Your task to perform on an android device: Go to location settings Image 0: 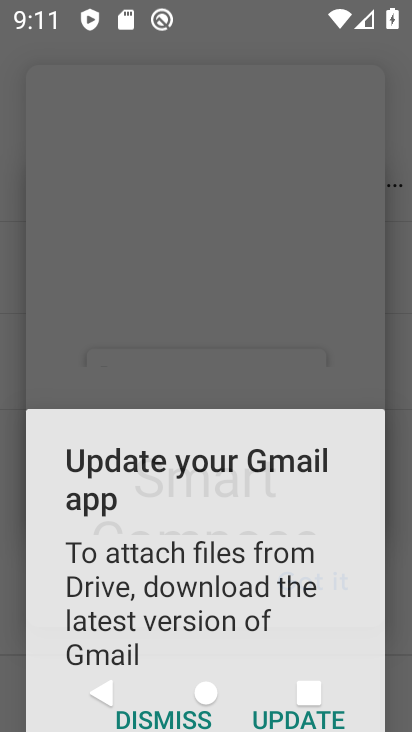
Step 0: press home button
Your task to perform on an android device: Go to location settings Image 1: 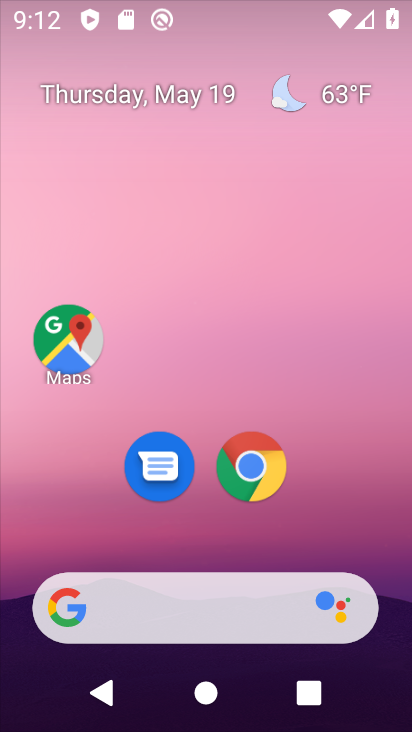
Step 1: drag from (393, 652) to (319, 39)
Your task to perform on an android device: Go to location settings Image 2: 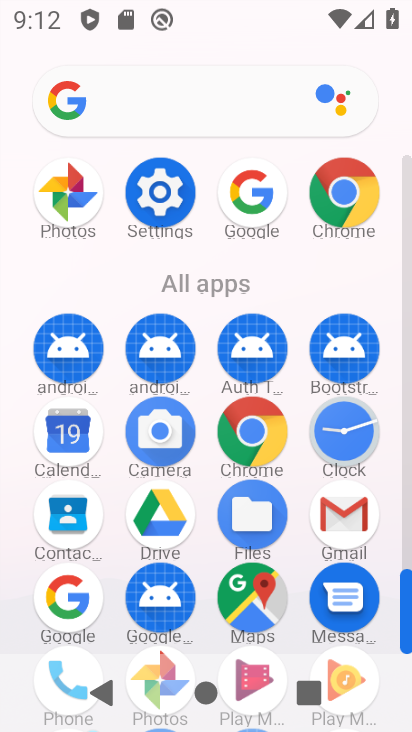
Step 2: click (153, 191)
Your task to perform on an android device: Go to location settings Image 3: 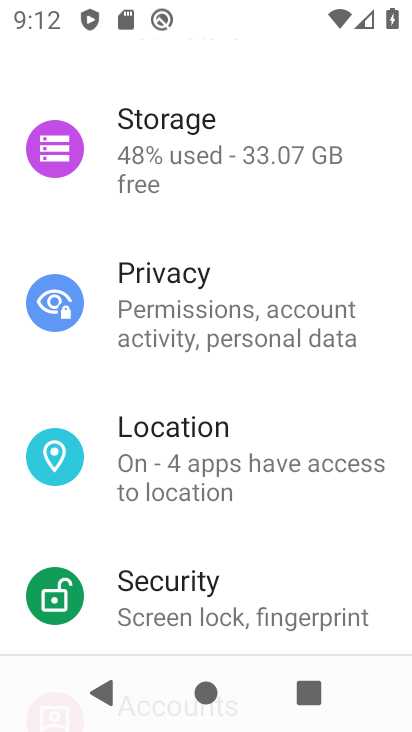
Step 3: click (193, 461)
Your task to perform on an android device: Go to location settings Image 4: 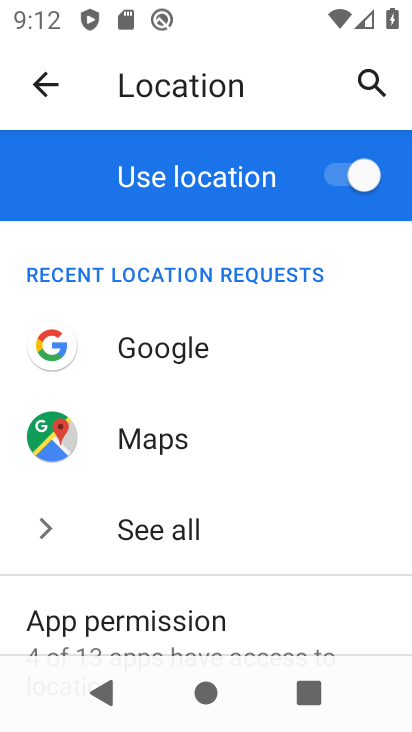
Step 4: task complete